Your task to perform on an android device: Go to display settings Image 0: 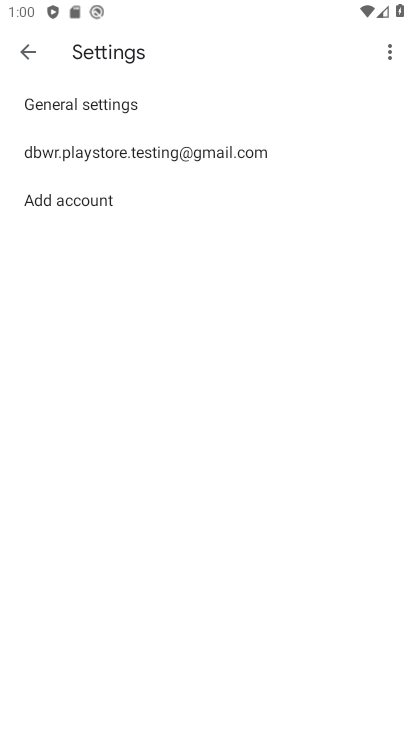
Step 0: press back button
Your task to perform on an android device: Go to display settings Image 1: 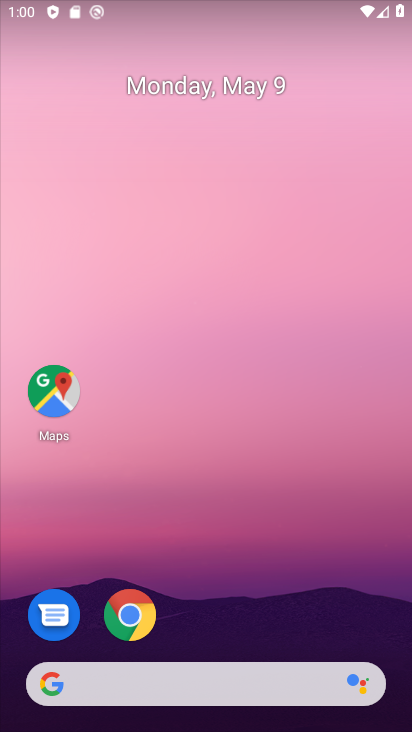
Step 1: drag from (214, 647) to (254, 317)
Your task to perform on an android device: Go to display settings Image 2: 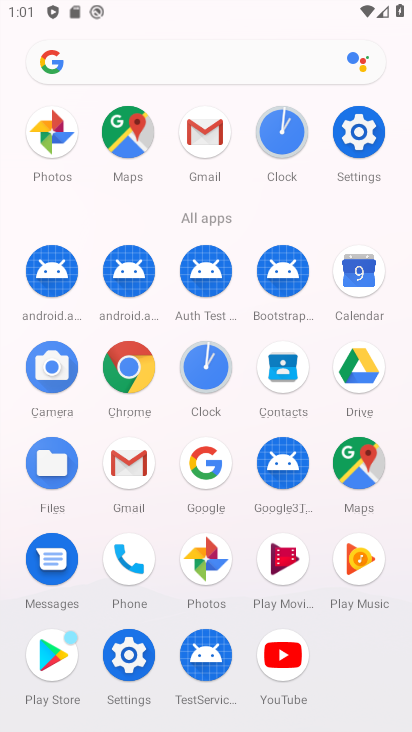
Step 2: click (112, 647)
Your task to perform on an android device: Go to display settings Image 3: 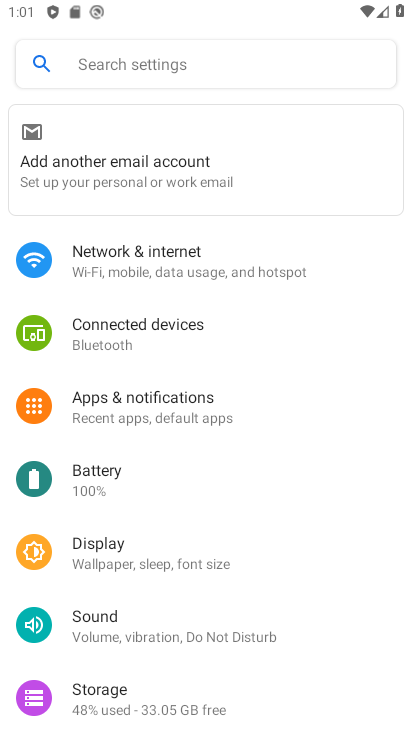
Step 3: click (184, 569)
Your task to perform on an android device: Go to display settings Image 4: 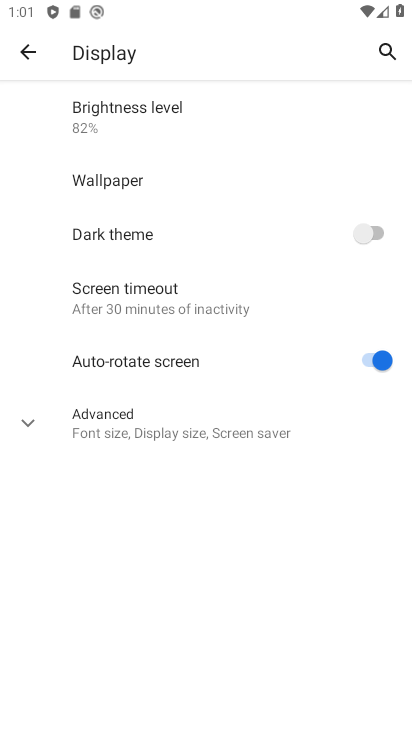
Step 4: task complete